Your task to perform on an android device: open app "Reddit" (install if not already installed), go to login, and select forgot password Image 0: 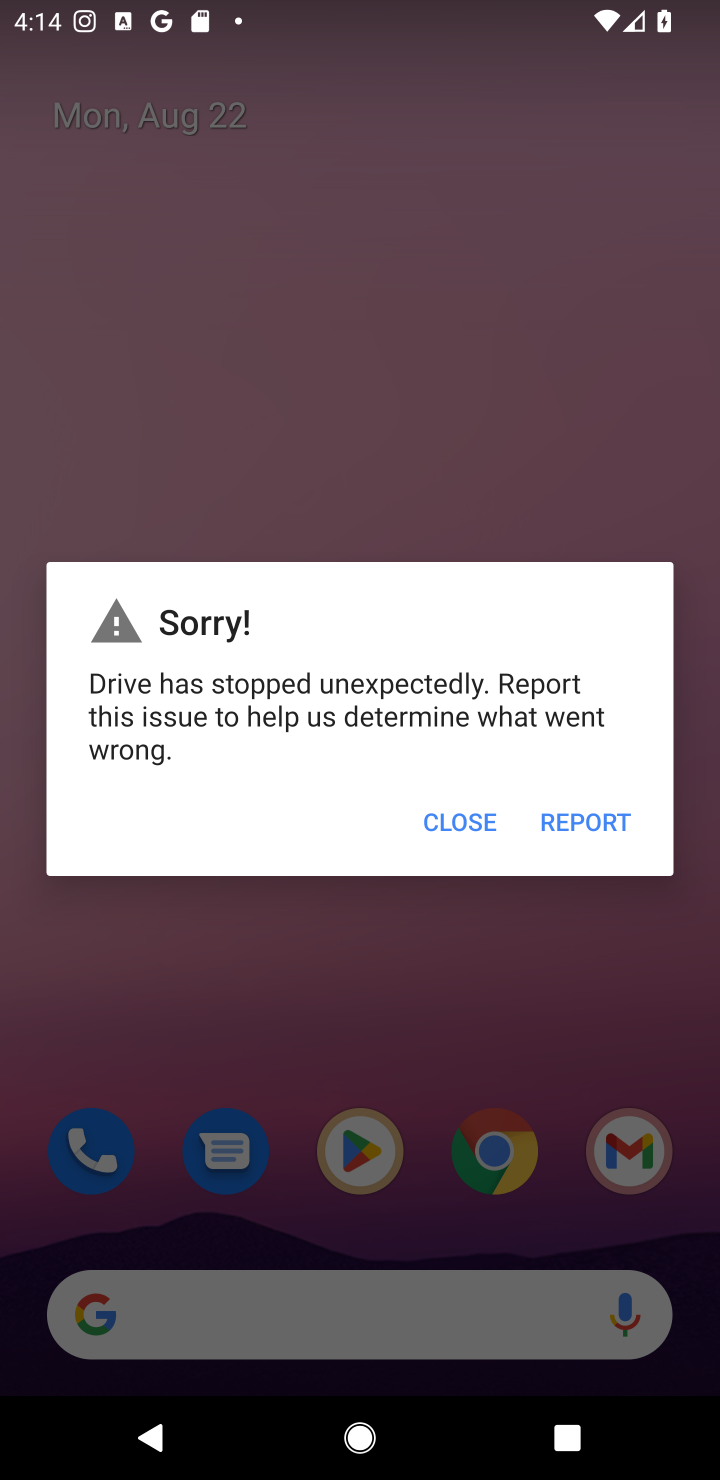
Step 0: press home button
Your task to perform on an android device: open app "Reddit" (install if not already installed), go to login, and select forgot password Image 1: 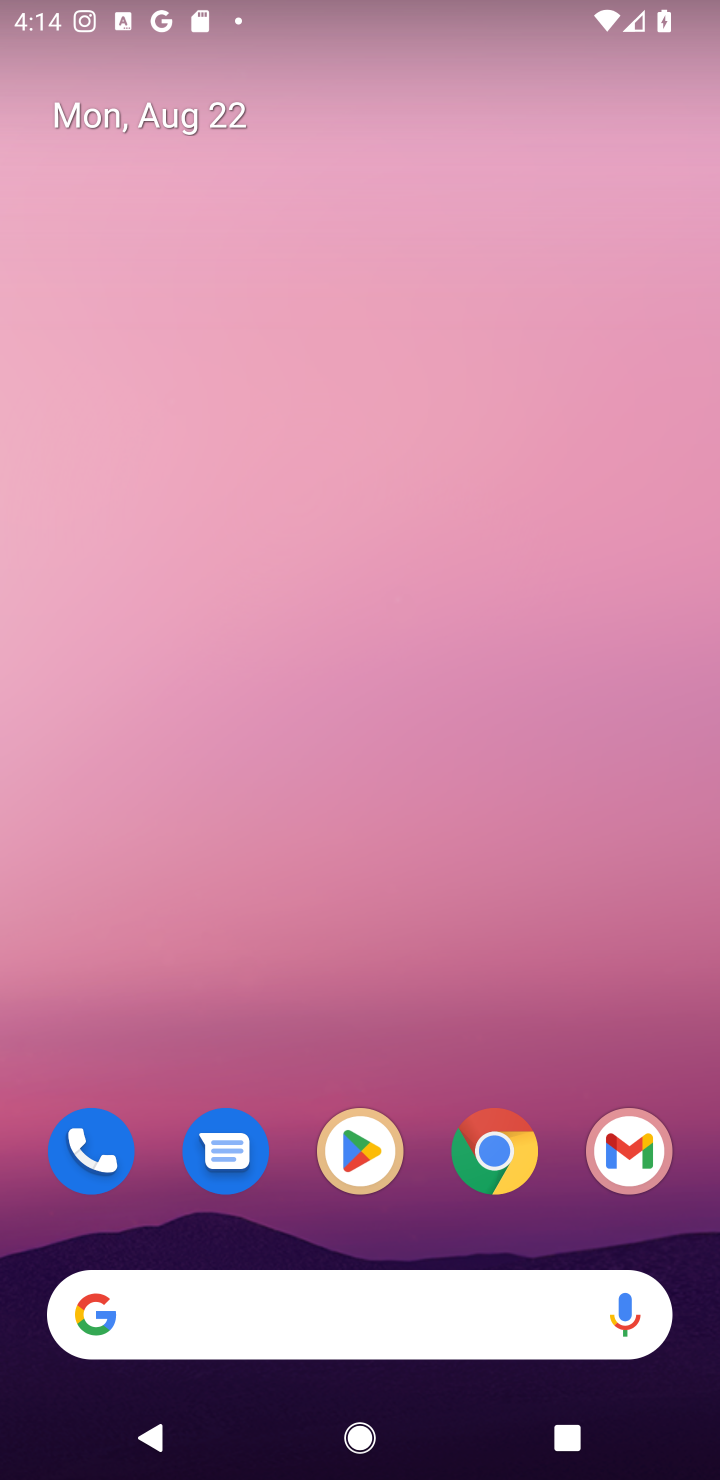
Step 1: click (366, 1145)
Your task to perform on an android device: open app "Reddit" (install if not already installed), go to login, and select forgot password Image 2: 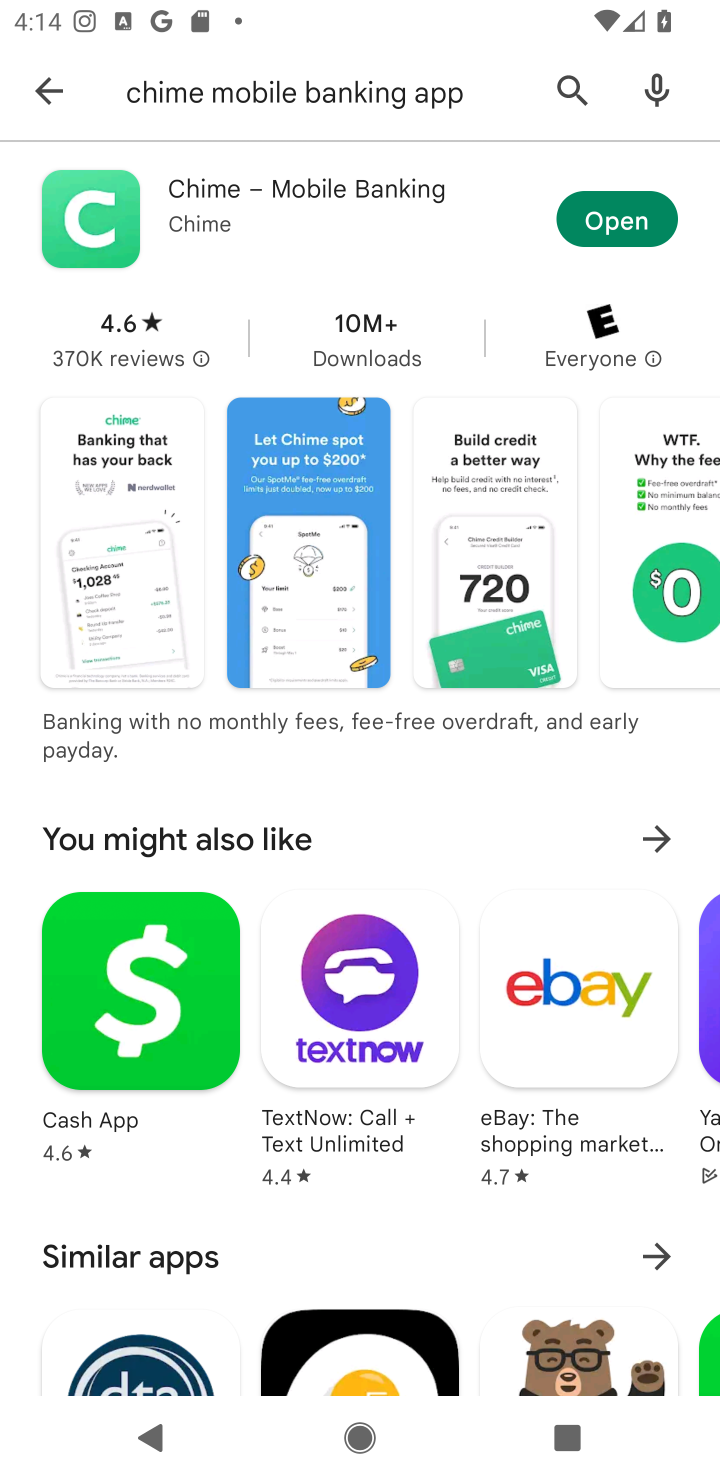
Step 2: click (557, 79)
Your task to perform on an android device: open app "Reddit" (install if not already installed), go to login, and select forgot password Image 3: 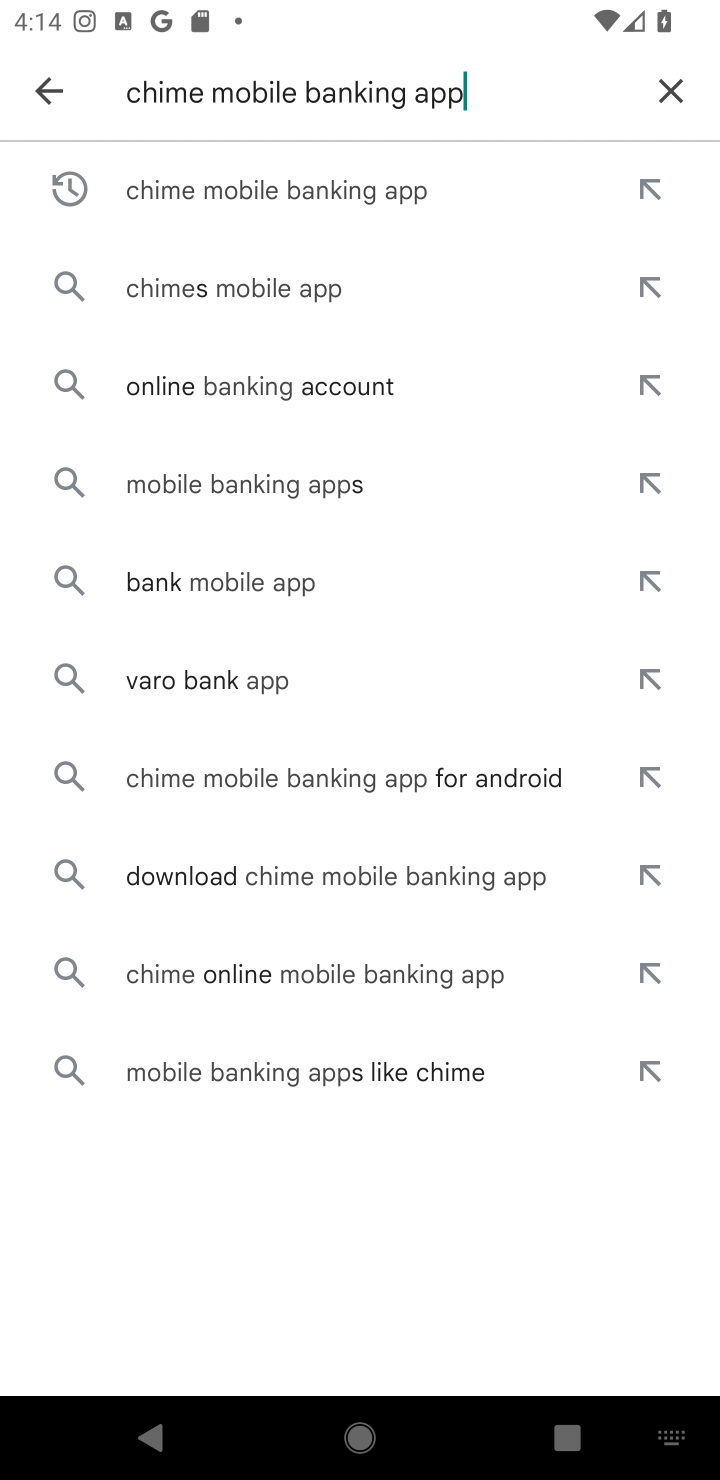
Step 3: click (676, 86)
Your task to perform on an android device: open app "Reddit" (install if not already installed), go to login, and select forgot password Image 4: 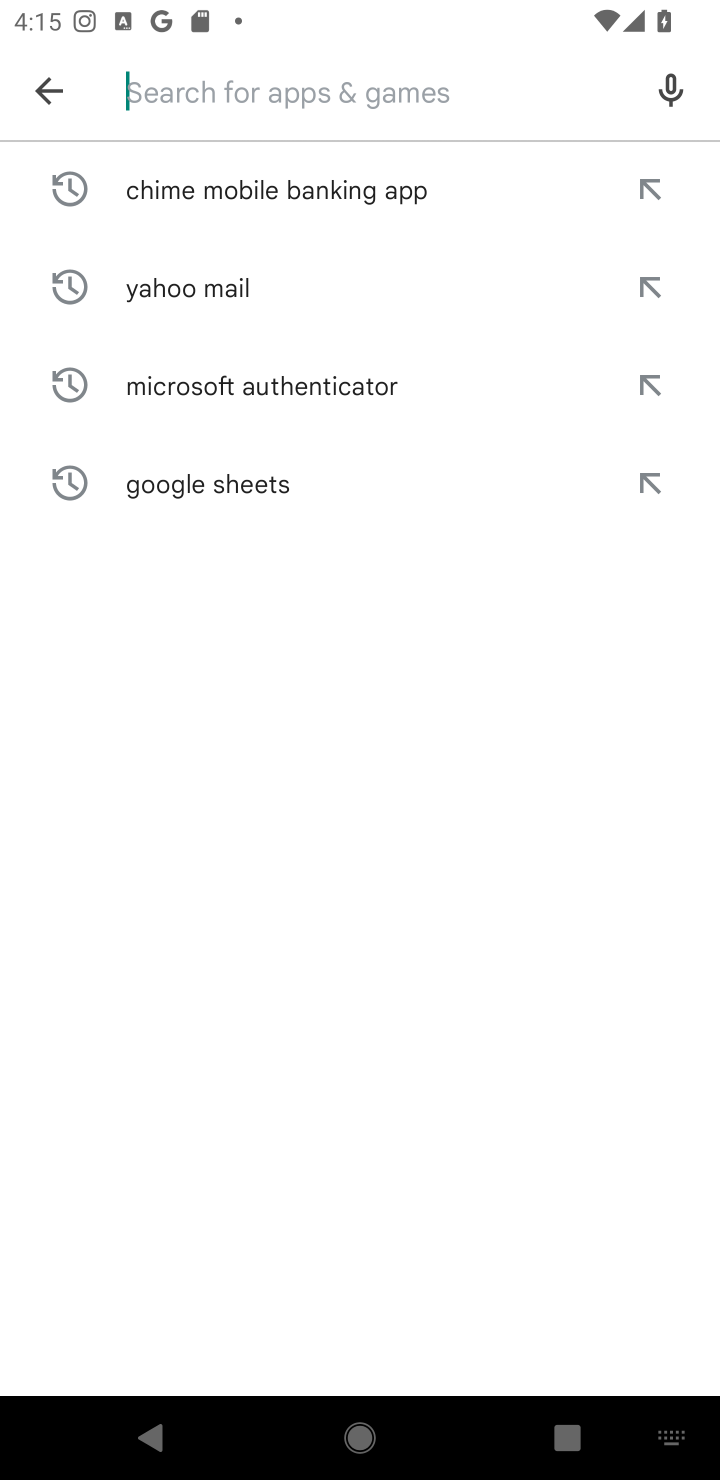
Step 4: type "Reddit"
Your task to perform on an android device: open app "Reddit" (install if not already installed), go to login, and select forgot password Image 5: 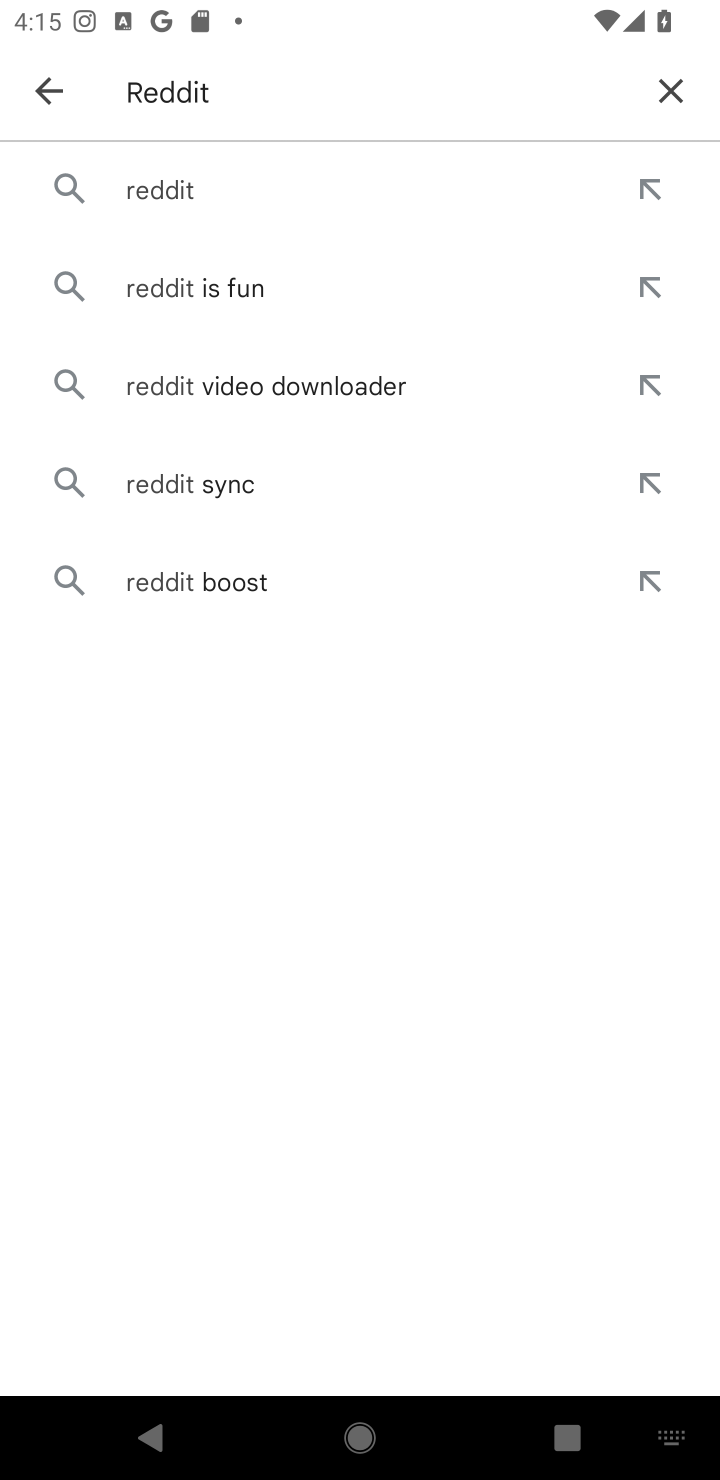
Step 5: click (219, 179)
Your task to perform on an android device: open app "Reddit" (install if not already installed), go to login, and select forgot password Image 6: 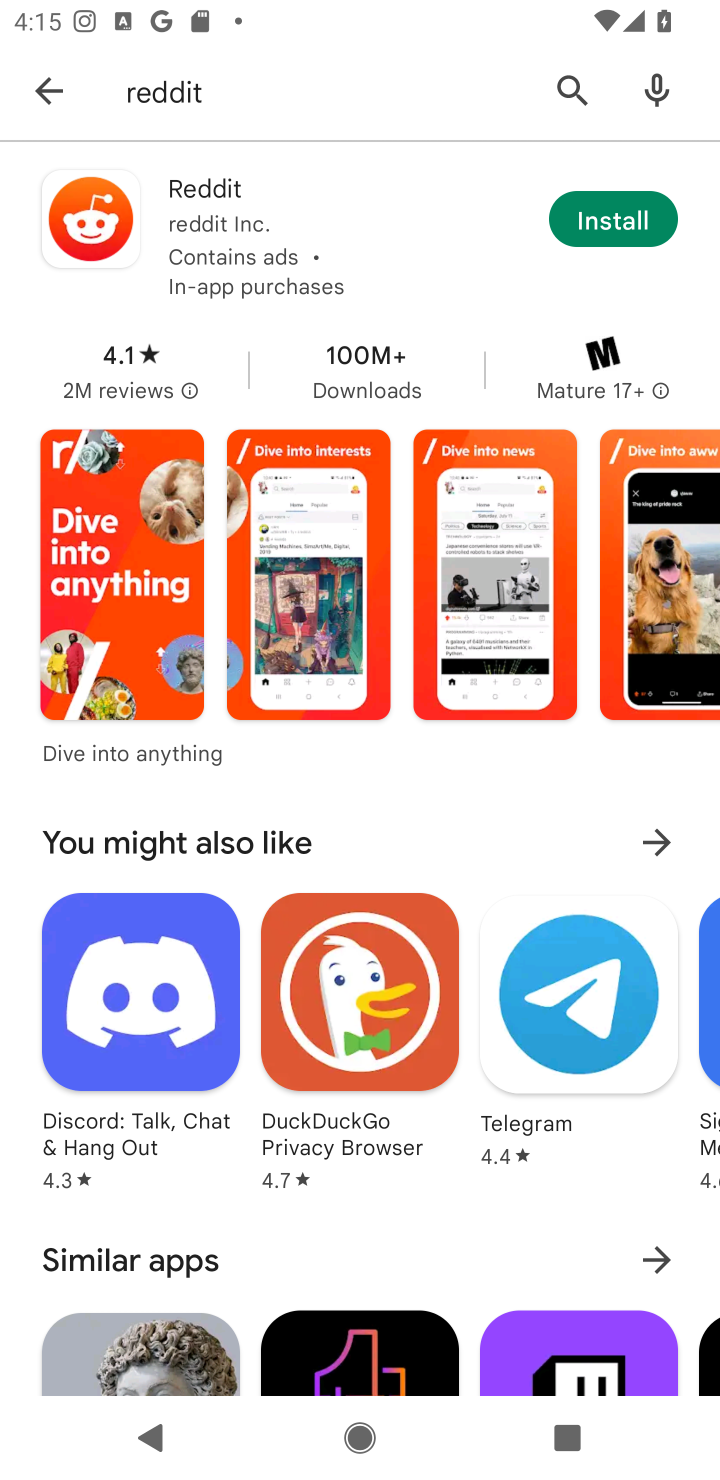
Step 6: click (643, 222)
Your task to perform on an android device: open app "Reddit" (install if not already installed), go to login, and select forgot password Image 7: 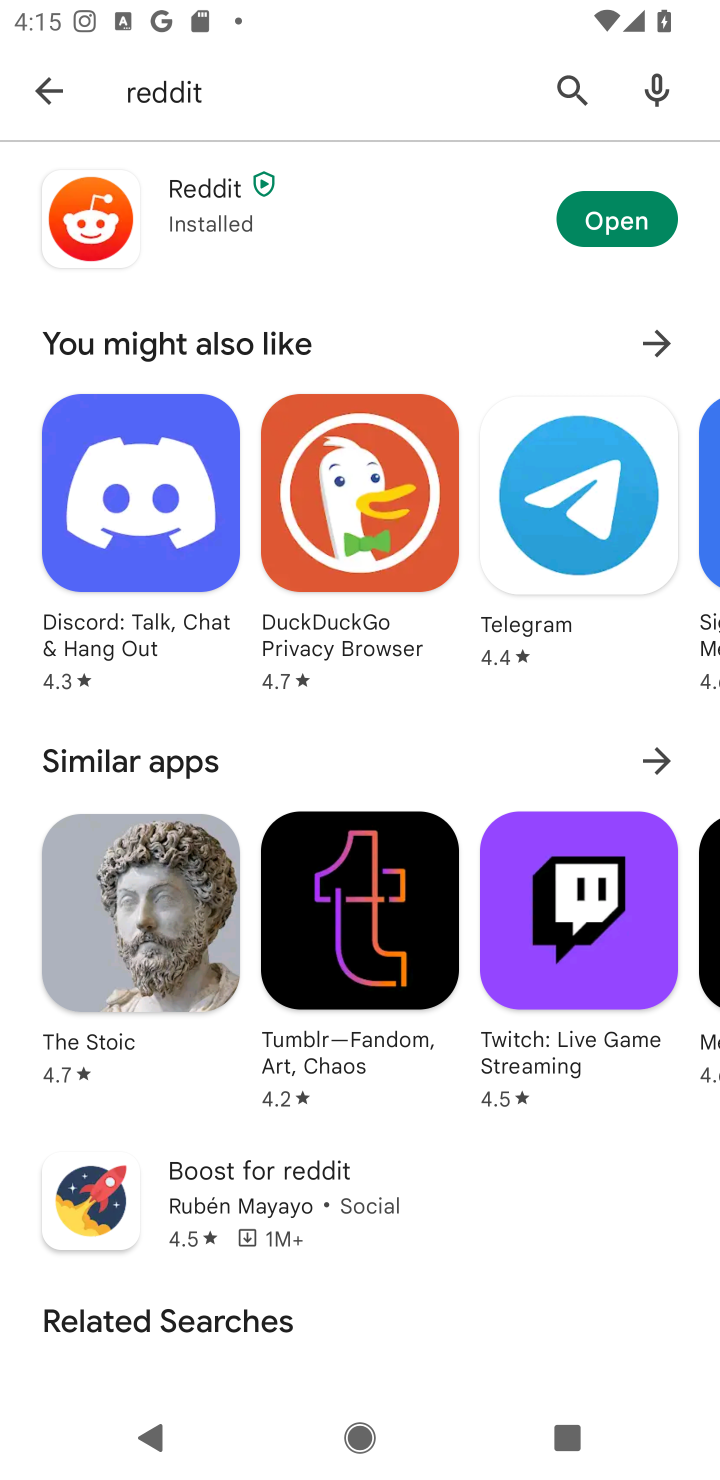
Step 7: click (622, 204)
Your task to perform on an android device: open app "Reddit" (install if not already installed), go to login, and select forgot password Image 8: 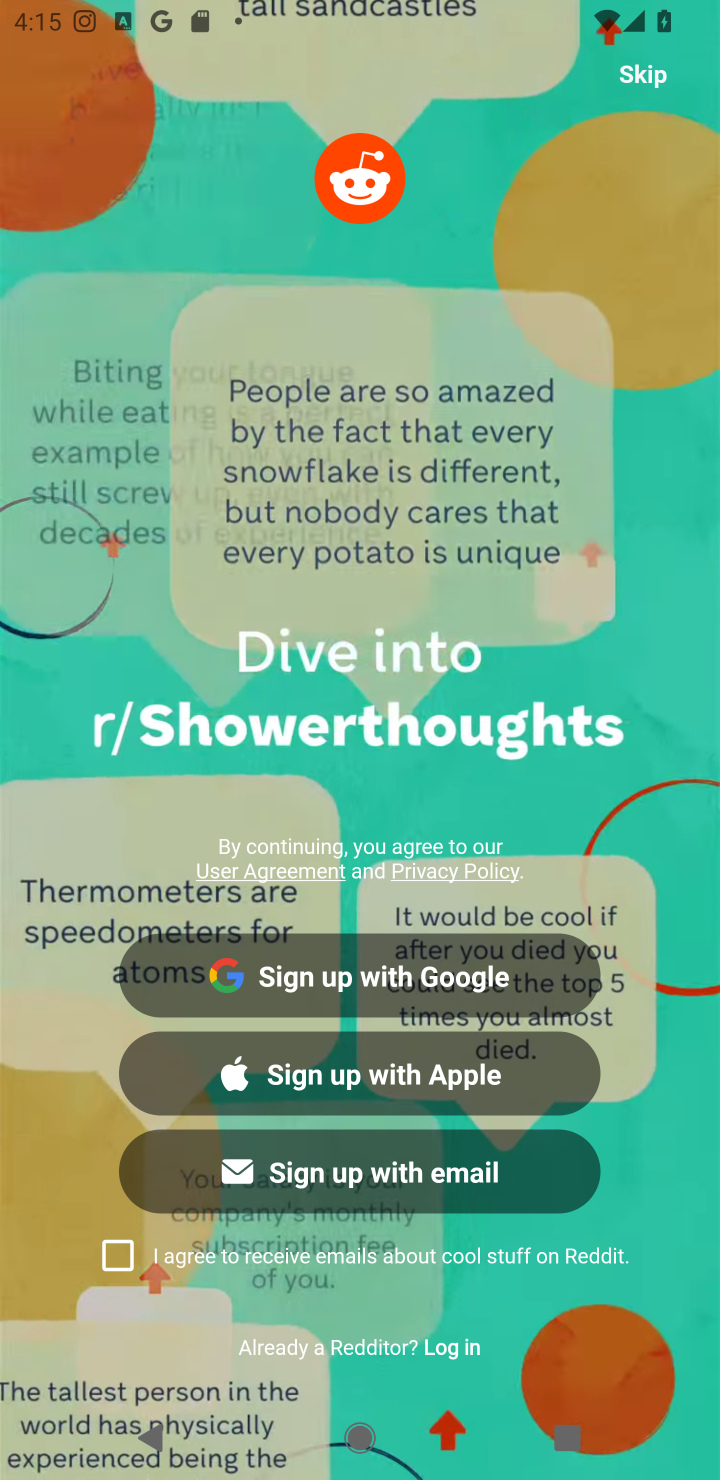
Step 8: click (371, 1184)
Your task to perform on an android device: open app "Reddit" (install if not already installed), go to login, and select forgot password Image 9: 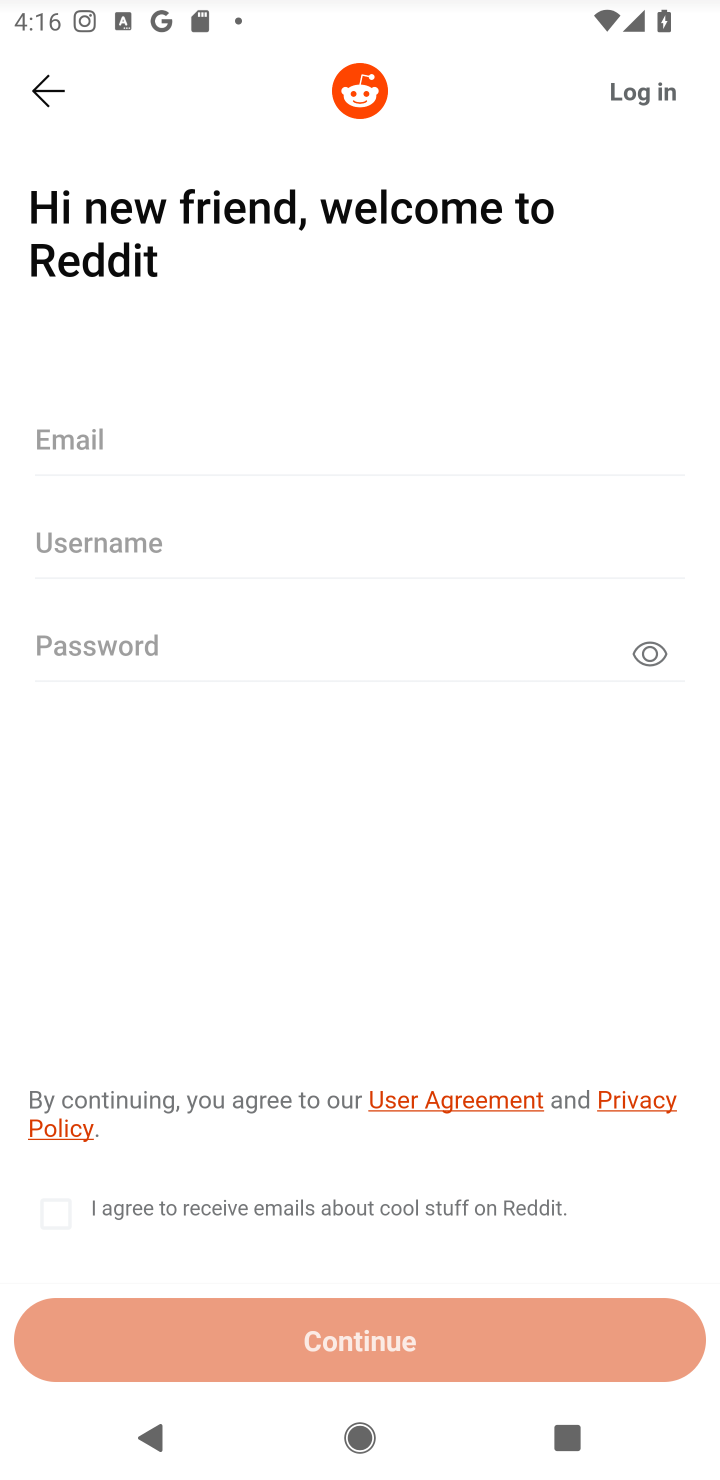
Step 9: click (375, 1171)
Your task to perform on an android device: open app "Reddit" (install if not already installed), go to login, and select forgot password Image 10: 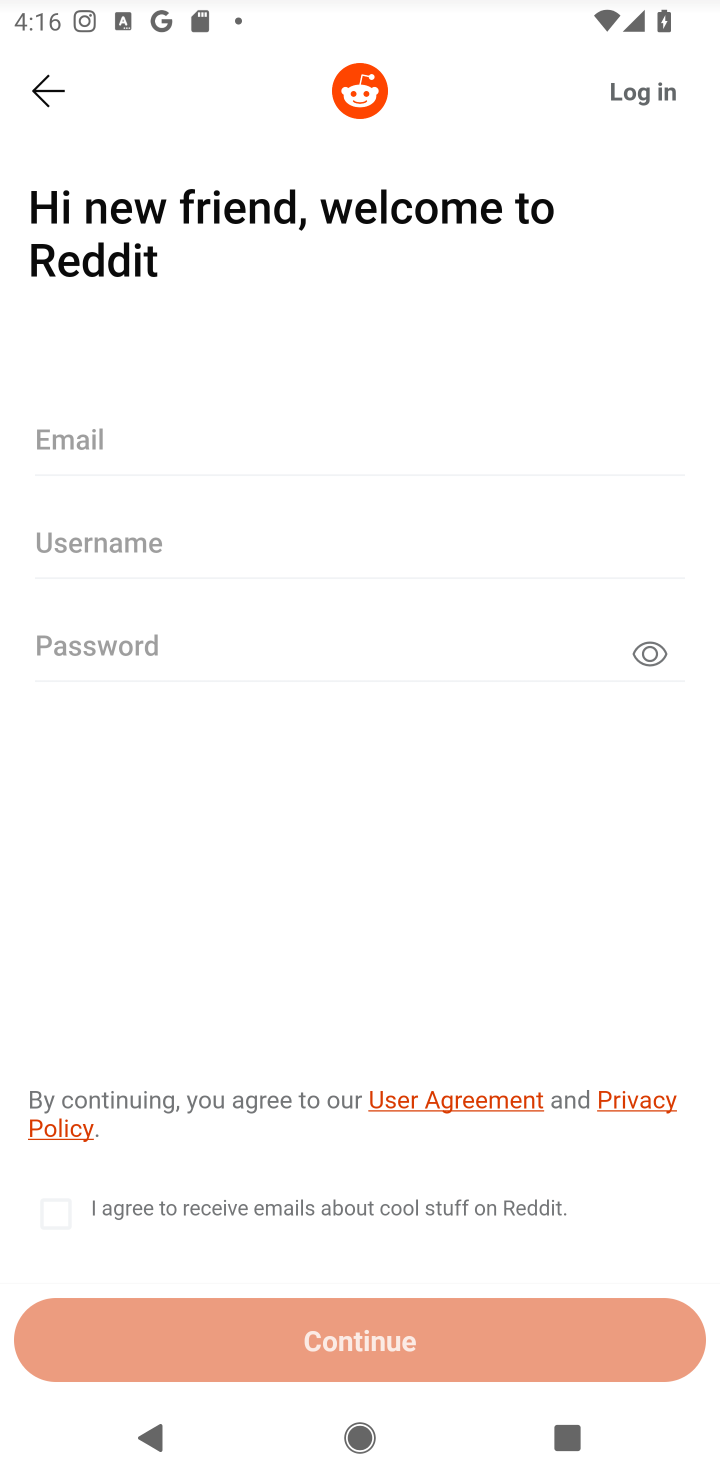
Step 10: click (166, 641)
Your task to perform on an android device: open app "Reddit" (install if not already installed), go to login, and select forgot password Image 11: 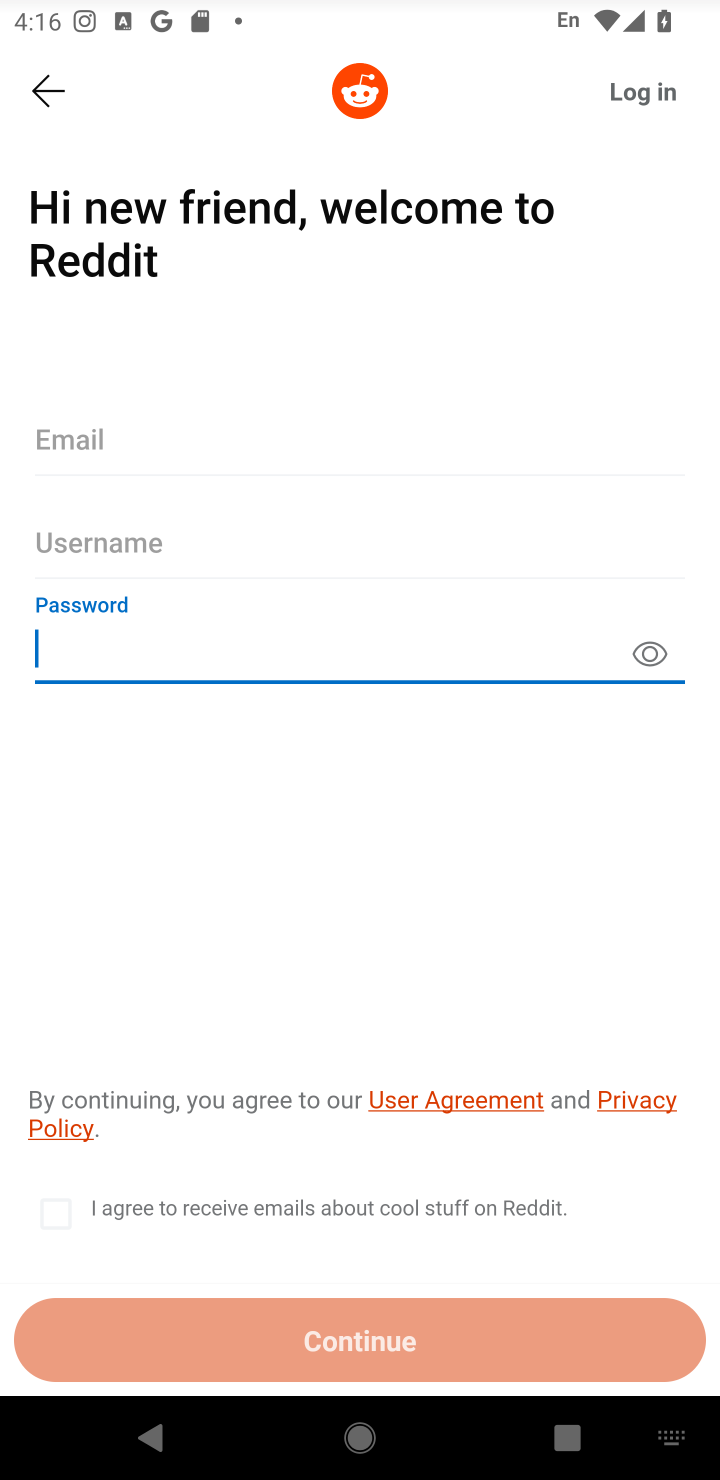
Step 11: task complete